Your task to perform on an android device: Show me popular games on the Play Store Image 0: 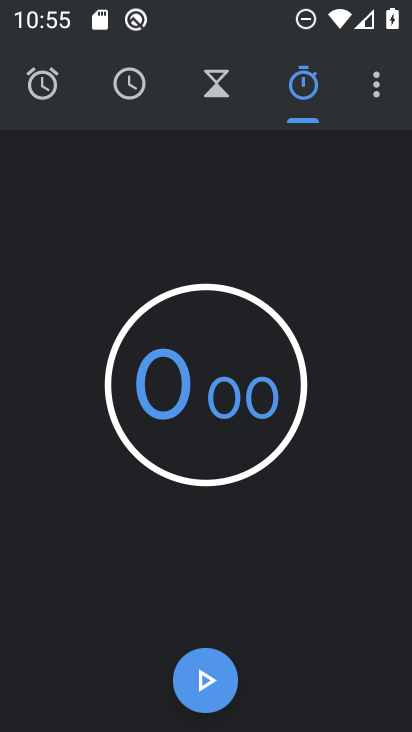
Step 0: press home button
Your task to perform on an android device: Show me popular games on the Play Store Image 1: 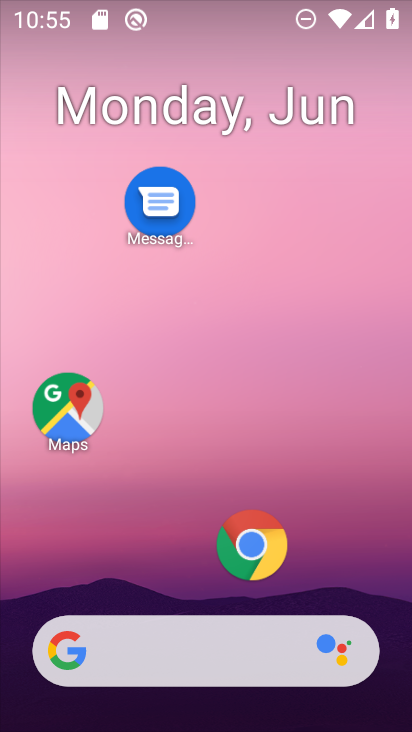
Step 1: drag from (142, 565) to (223, 127)
Your task to perform on an android device: Show me popular games on the Play Store Image 2: 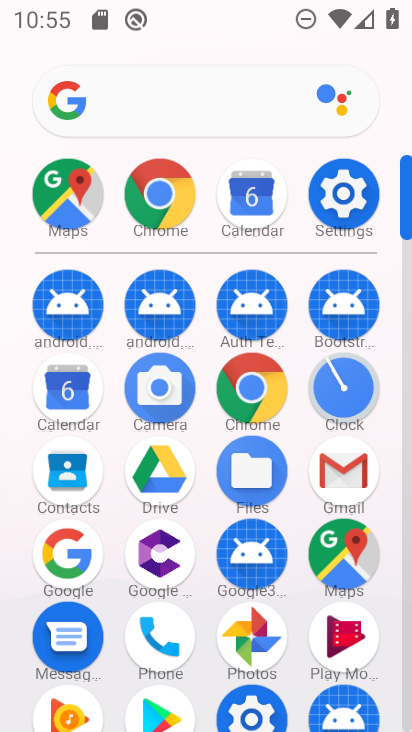
Step 2: drag from (249, 566) to (330, 284)
Your task to perform on an android device: Show me popular games on the Play Store Image 3: 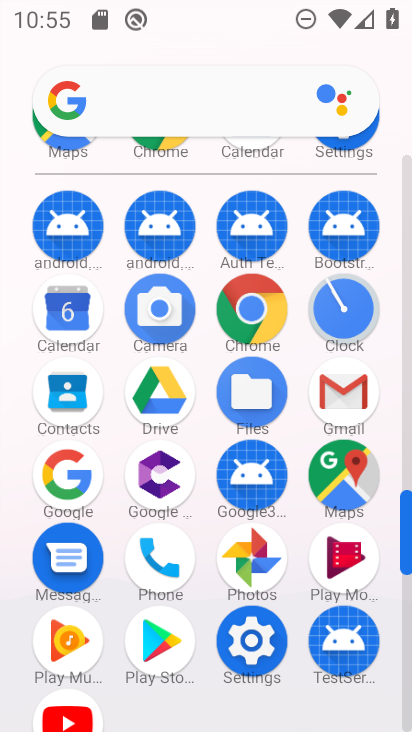
Step 3: click (156, 650)
Your task to perform on an android device: Show me popular games on the Play Store Image 4: 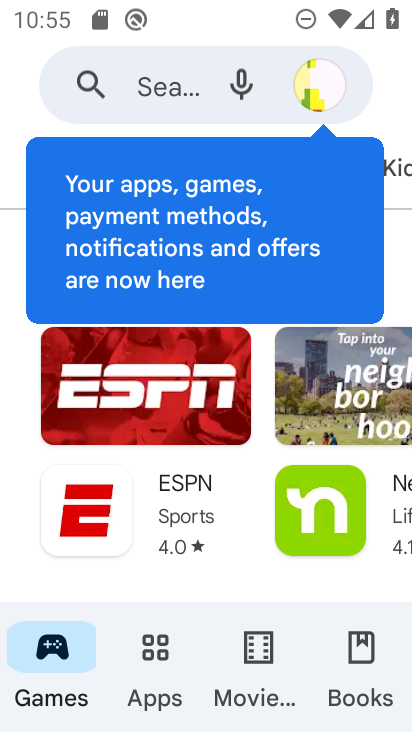
Step 4: click (175, 91)
Your task to perform on an android device: Show me popular games on the Play Store Image 5: 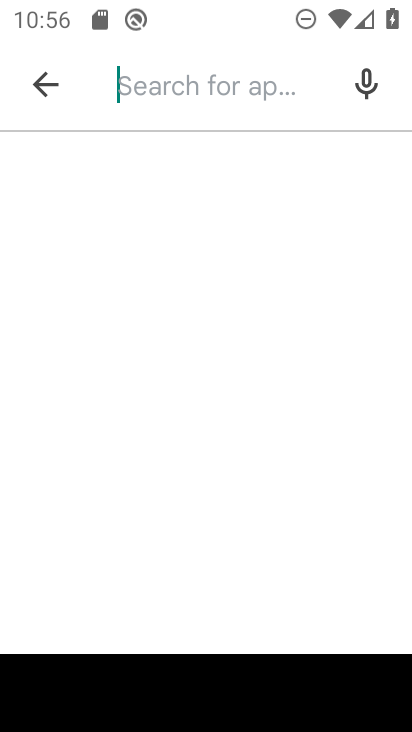
Step 5: type "popular games"
Your task to perform on an android device: Show me popular games on the Play Store Image 6: 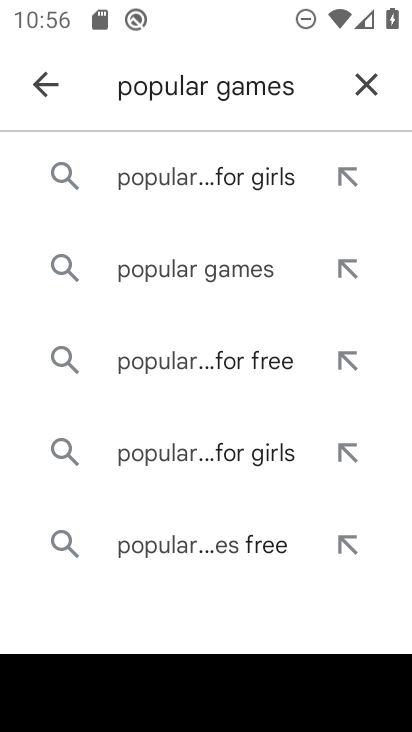
Step 6: click (197, 255)
Your task to perform on an android device: Show me popular games on the Play Store Image 7: 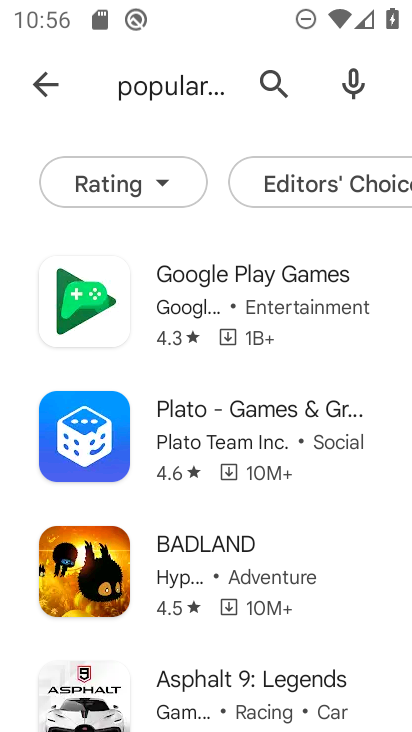
Step 7: task complete